Your task to perform on an android device: turn off javascript in the chrome app Image 0: 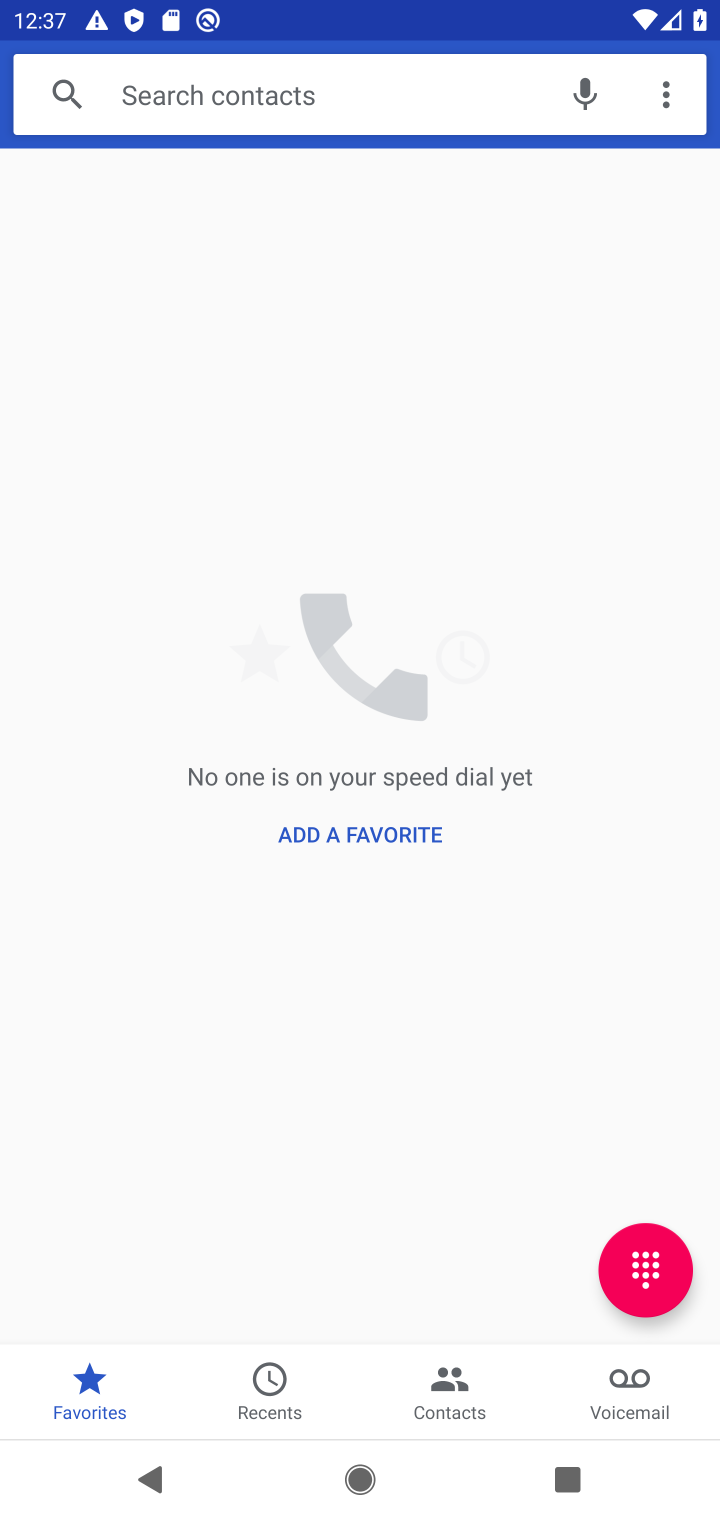
Step 0: press home button
Your task to perform on an android device: turn off javascript in the chrome app Image 1: 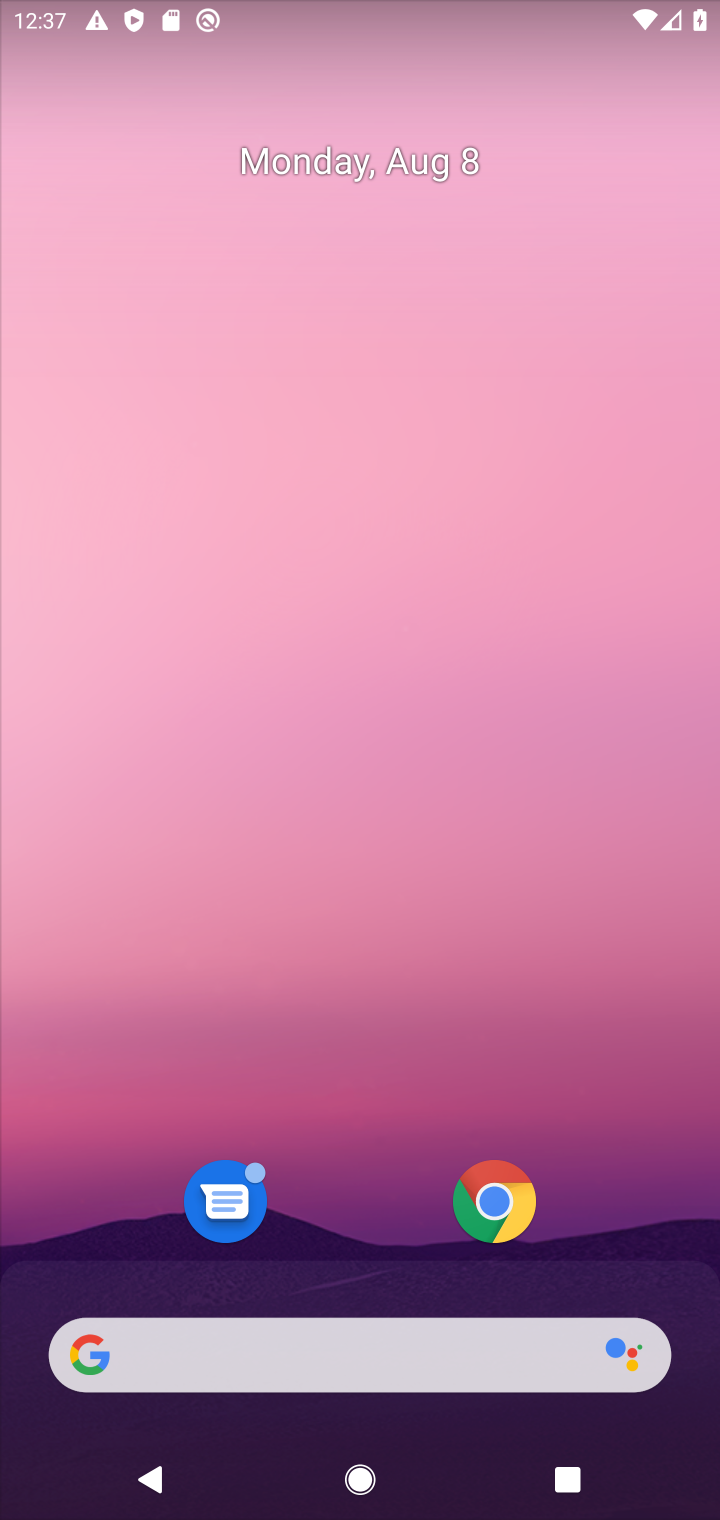
Step 1: click (497, 1188)
Your task to perform on an android device: turn off javascript in the chrome app Image 2: 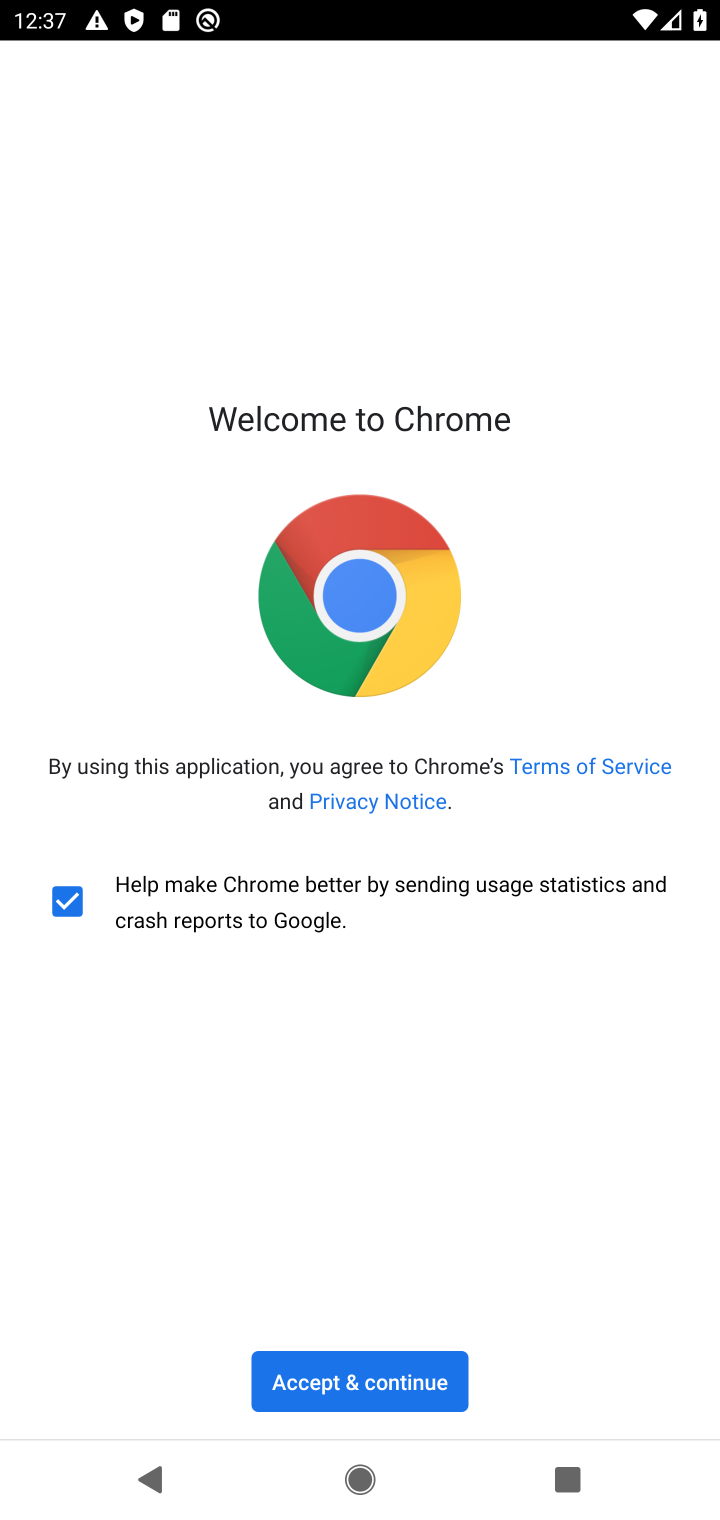
Step 2: click (442, 1388)
Your task to perform on an android device: turn off javascript in the chrome app Image 3: 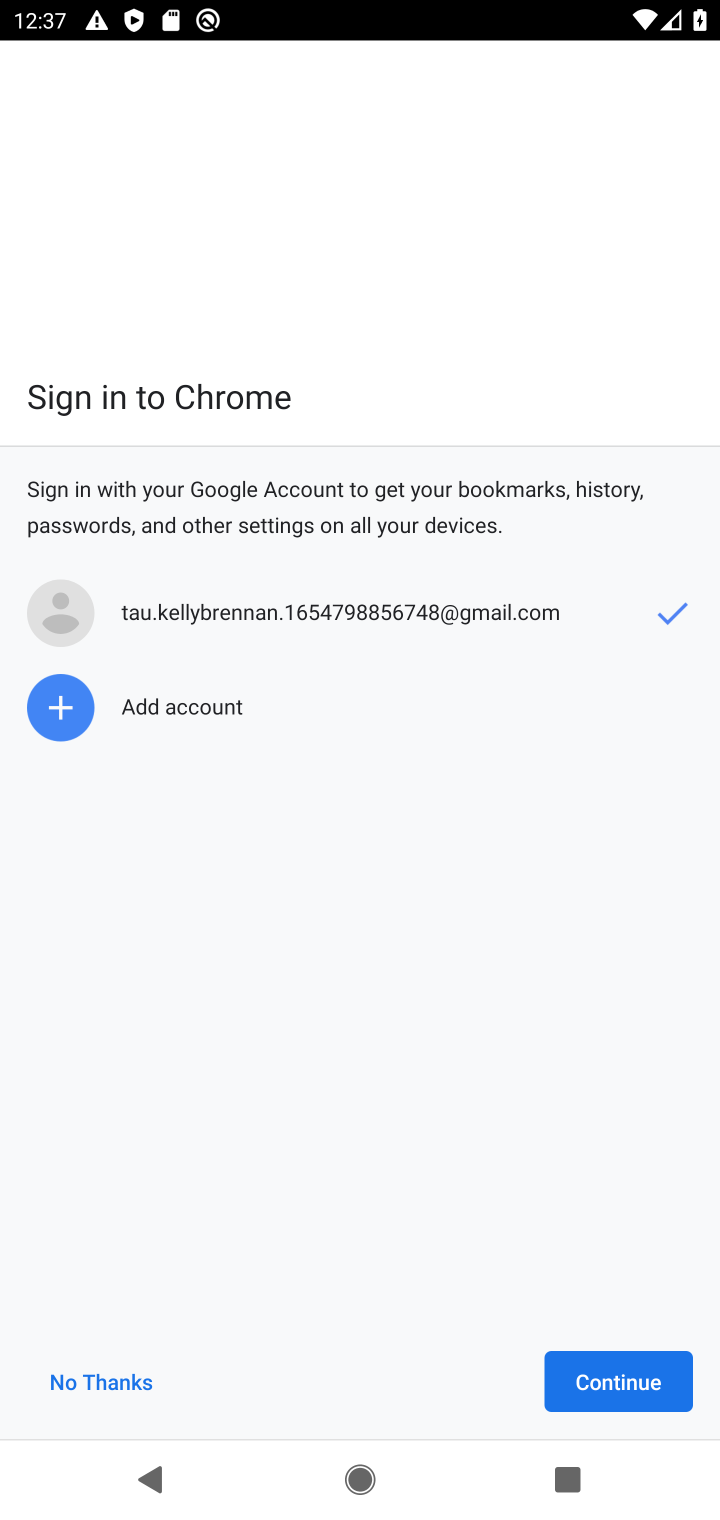
Step 3: click (606, 1378)
Your task to perform on an android device: turn off javascript in the chrome app Image 4: 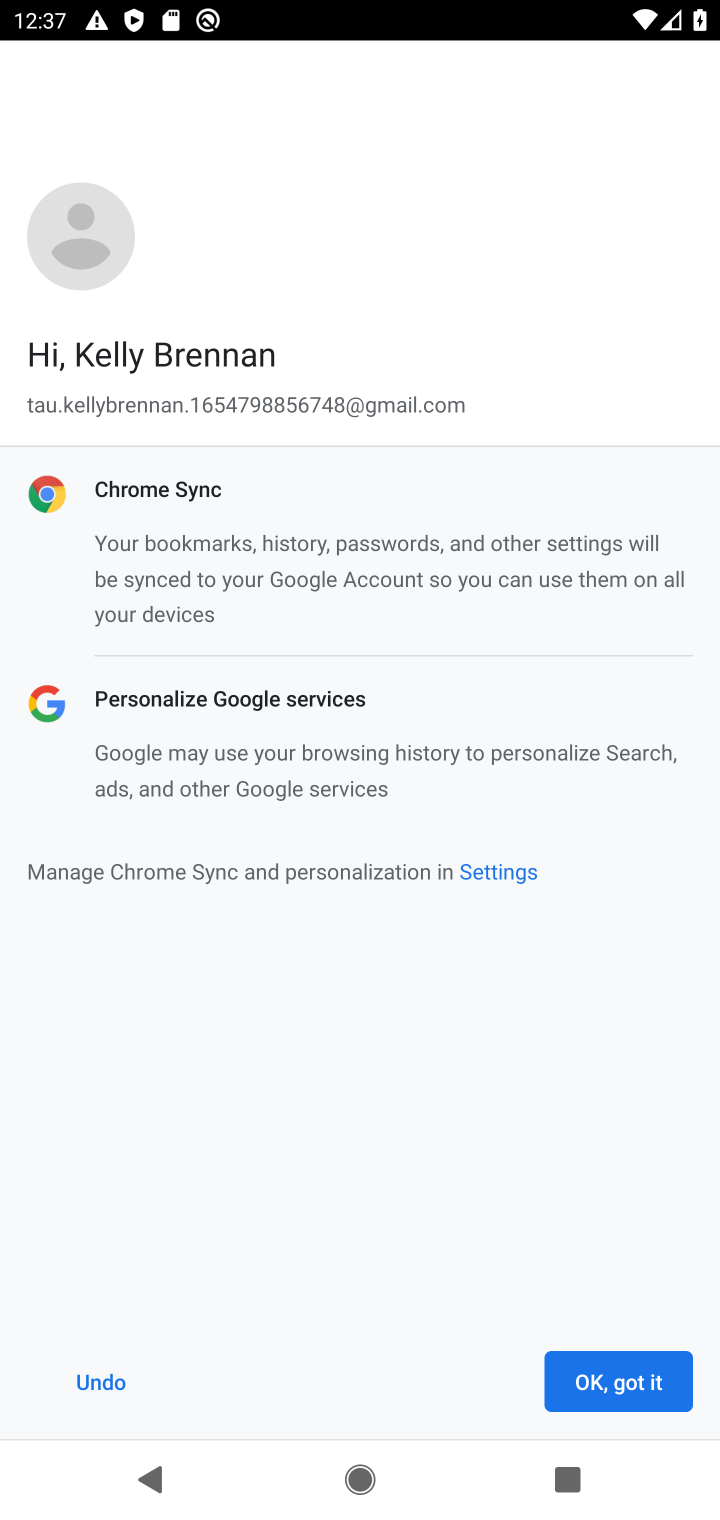
Step 4: click (623, 1371)
Your task to perform on an android device: turn off javascript in the chrome app Image 5: 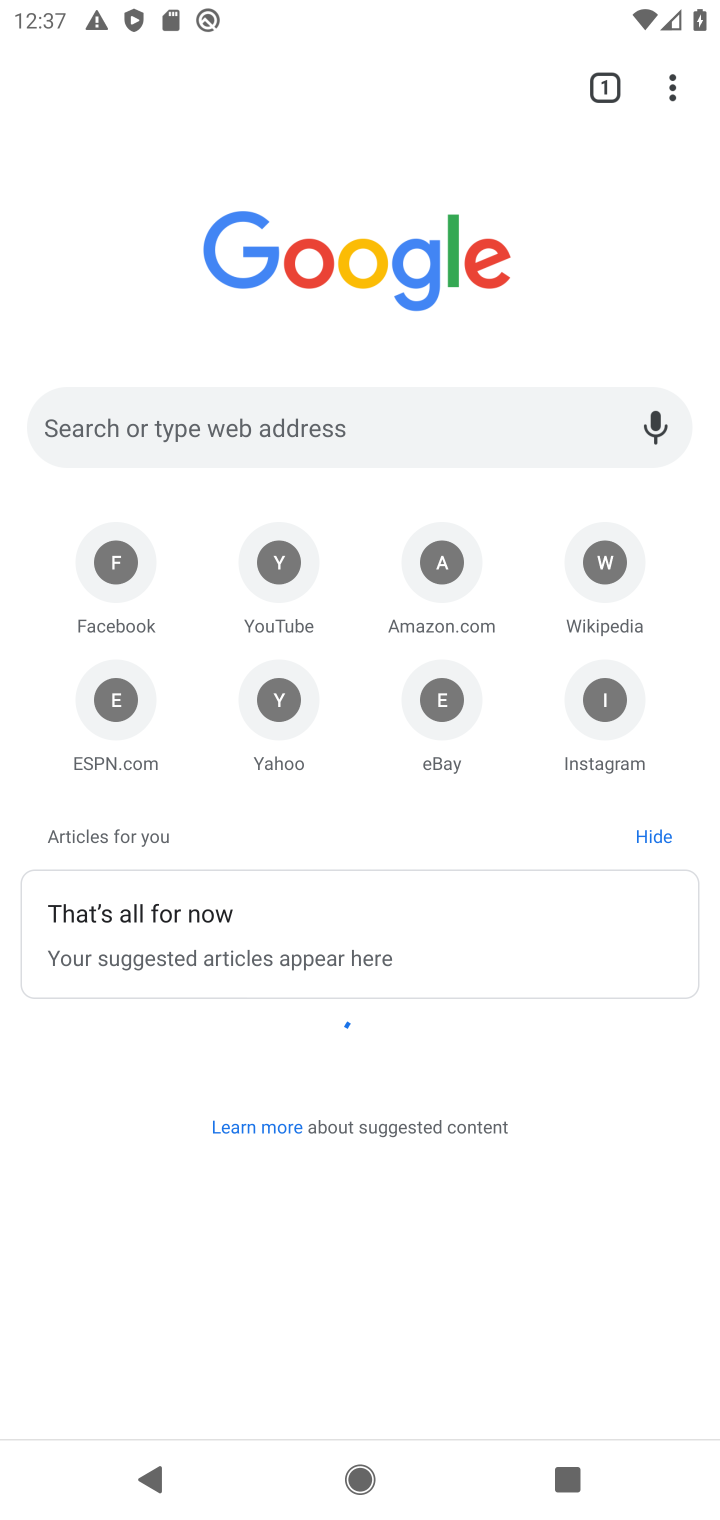
Step 5: click (673, 88)
Your task to perform on an android device: turn off javascript in the chrome app Image 6: 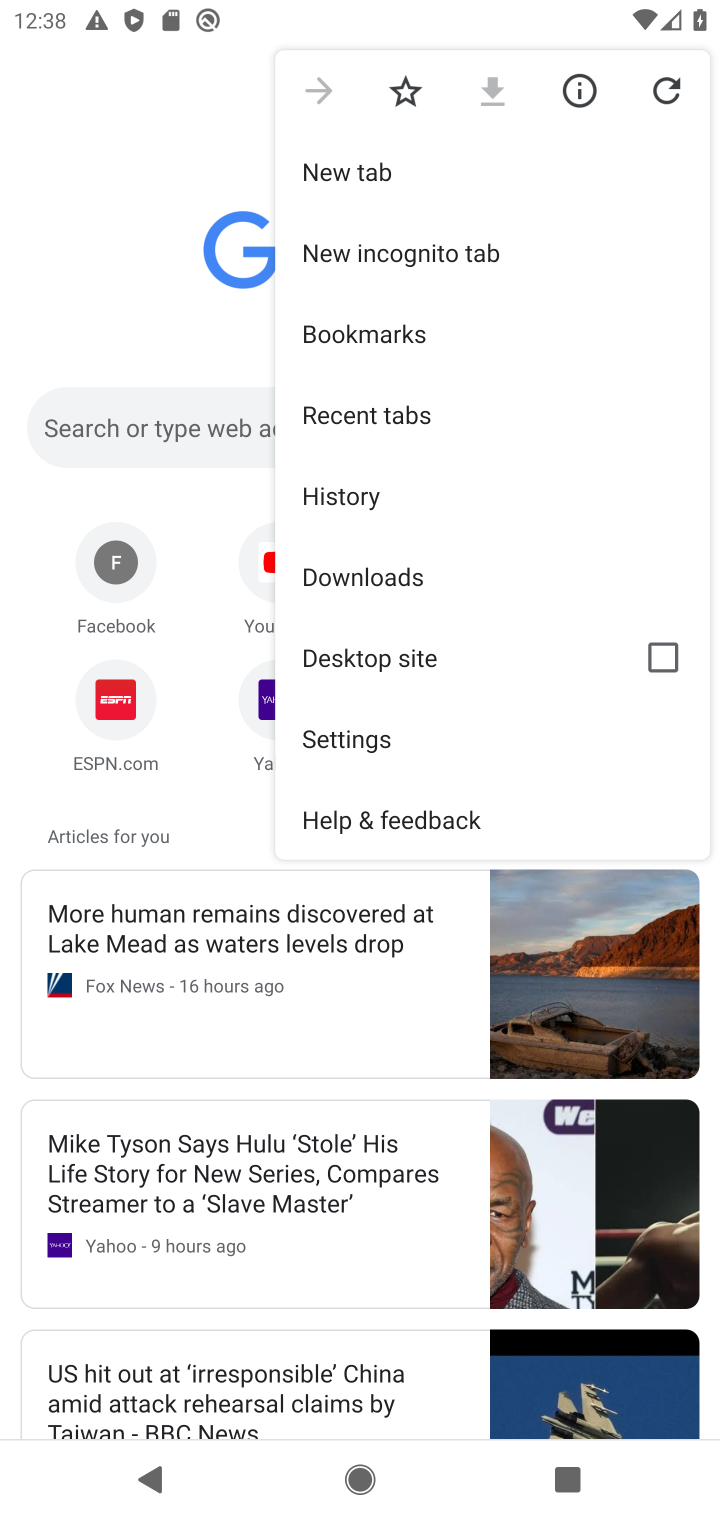
Step 6: click (363, 739)
Your task to perform on an android device: turn off javascript in the chrome app Image 7: 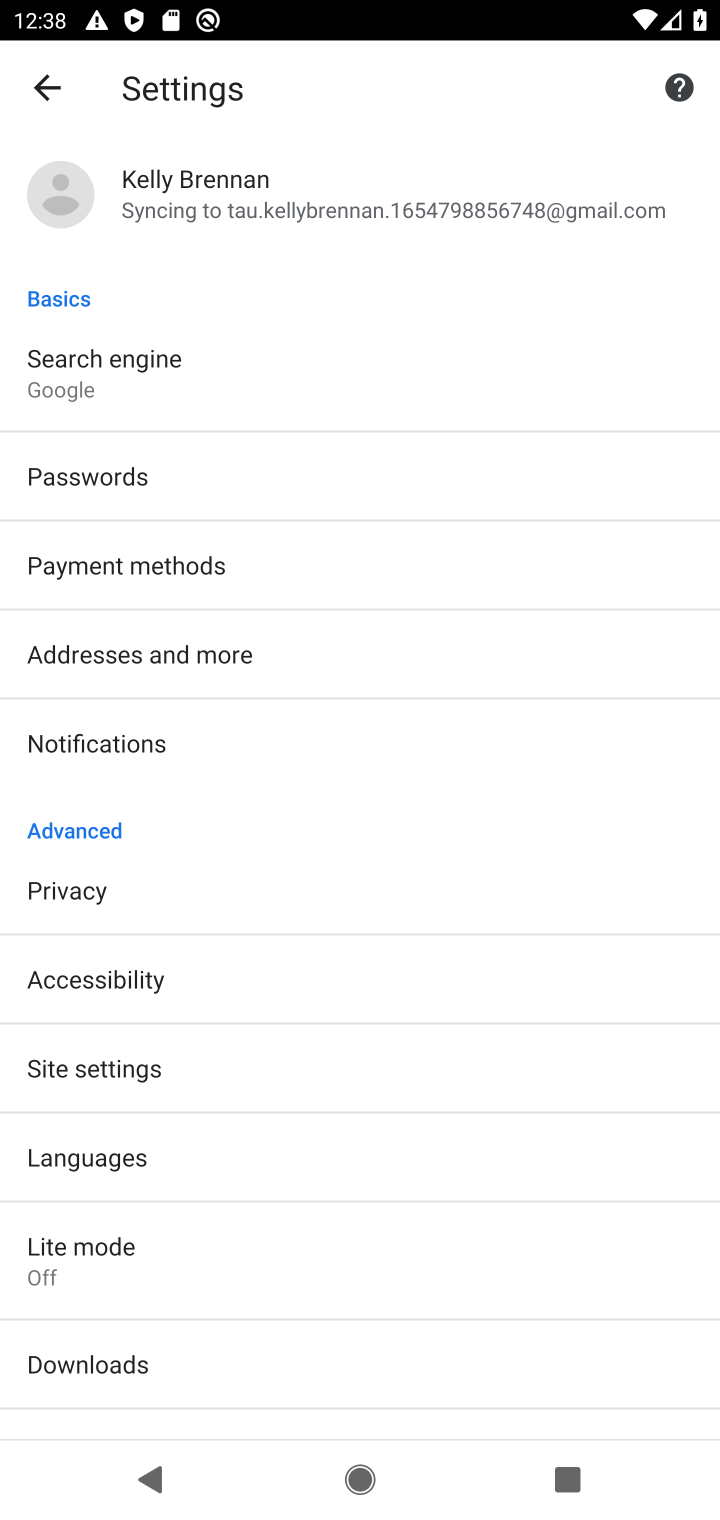
Step 7: click (176, 1076)
Your task to perform on an android device: turn off javascript in the chrome app Image 8: 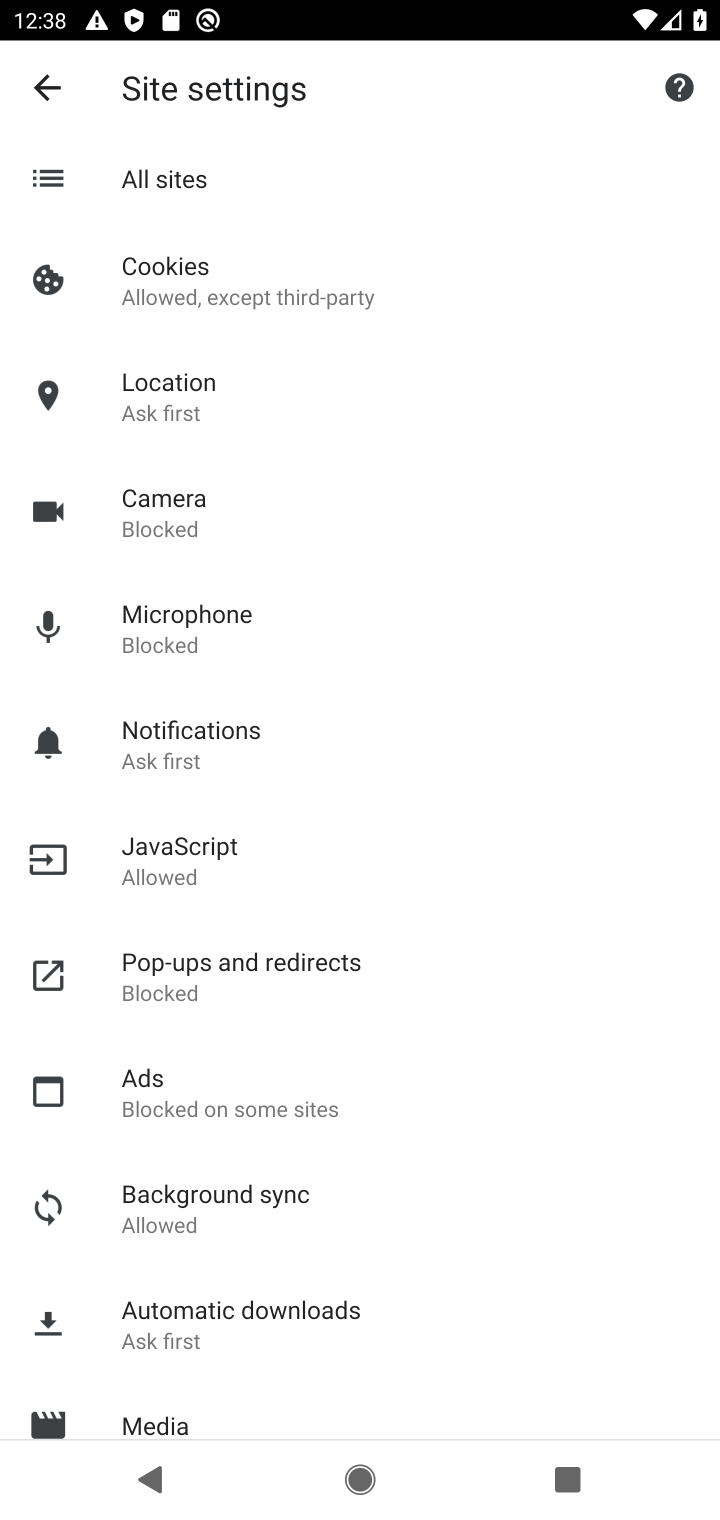
Step 8: click (247, 879)
Your task to perform on an android device: turn off javascript in the chrome app Image 9: 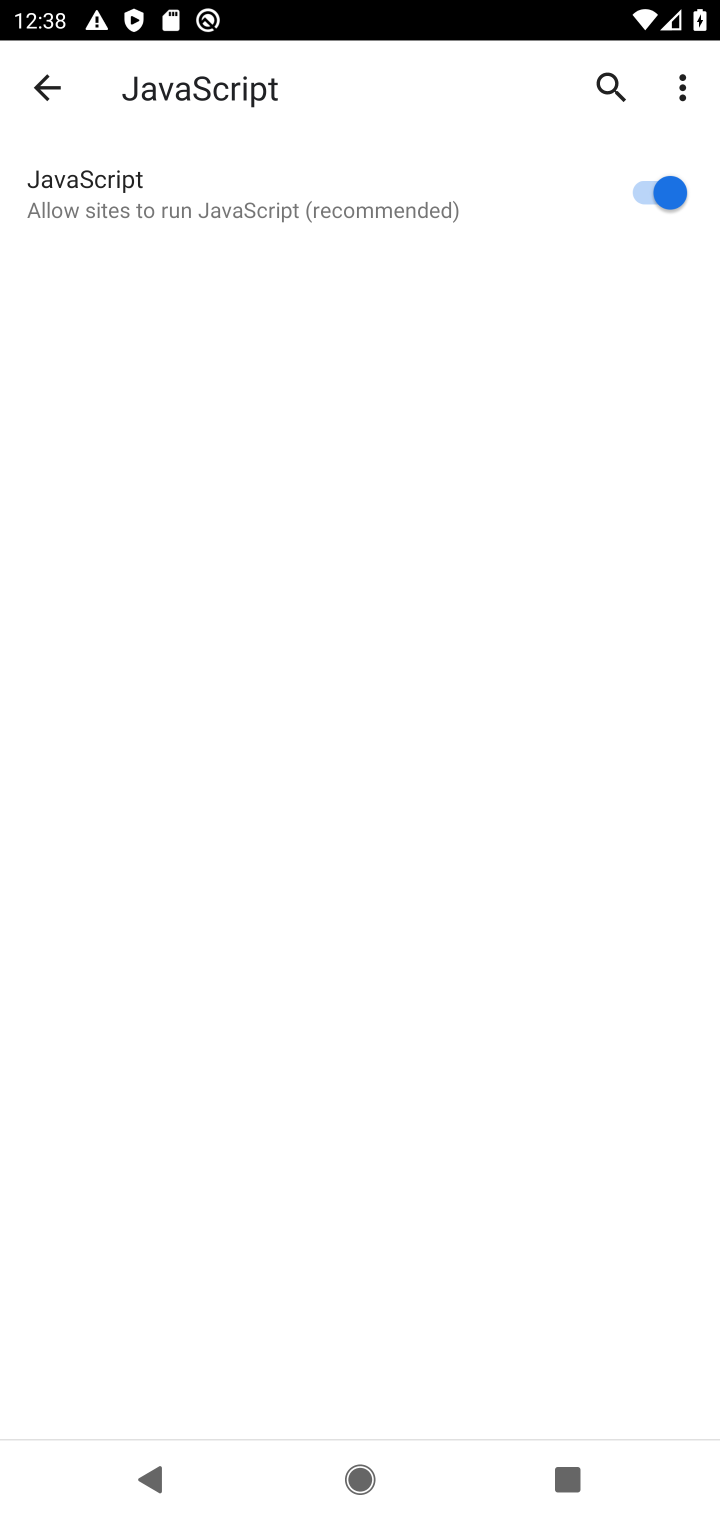
Step 9: click (648, 178)
Your task to perform on an android device: turn off javascript in the chrome app Image 10: 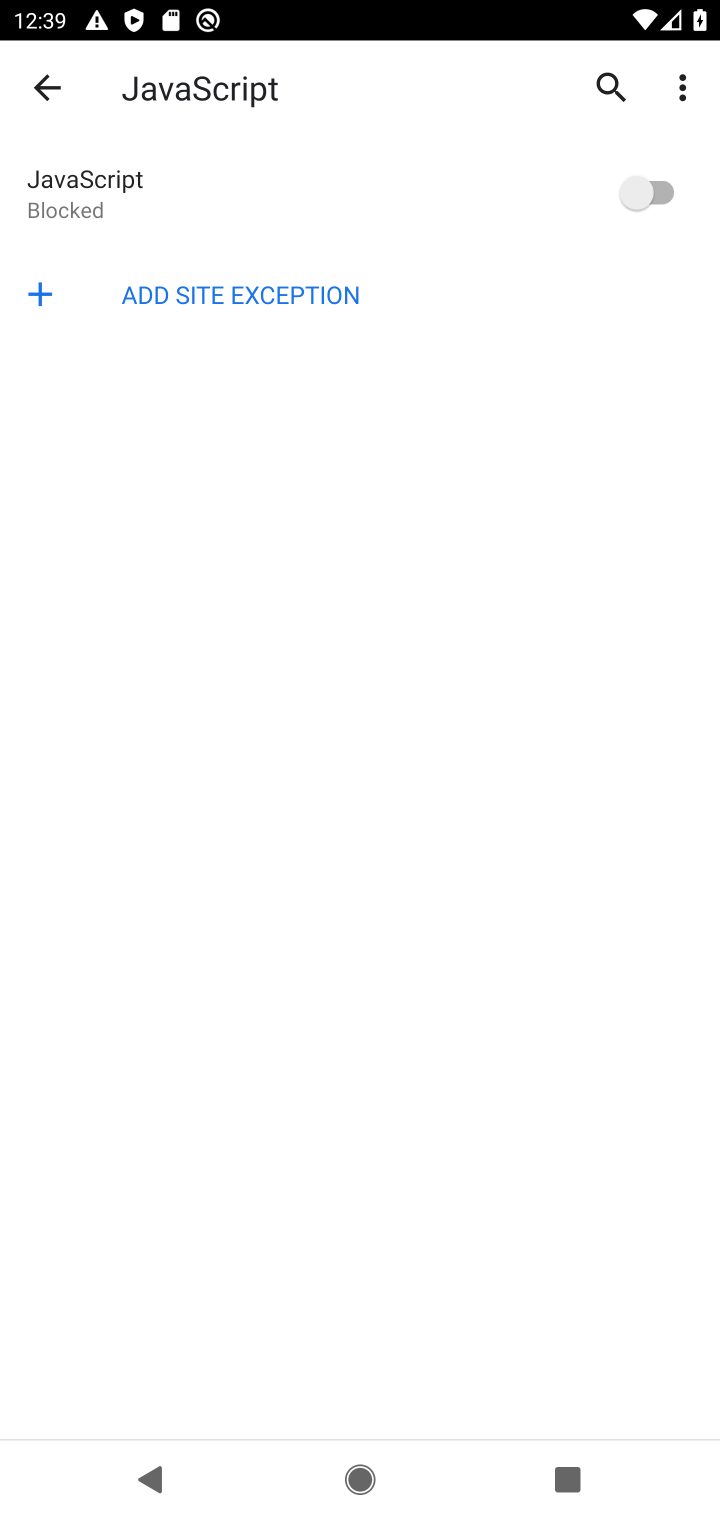
Step 10: task complete